Your task to perform on an android device: Open maps Image 0: 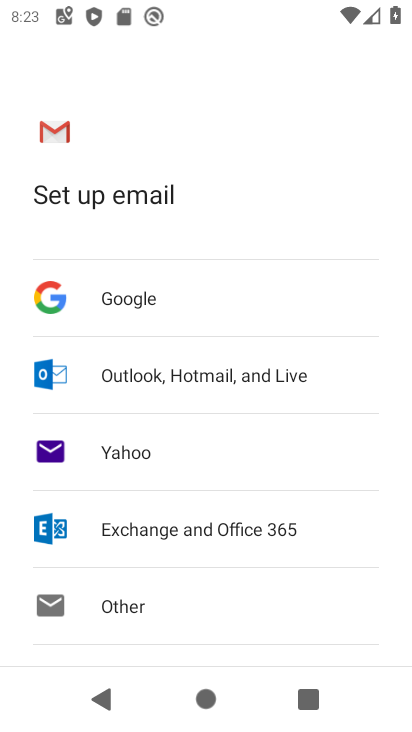
Step 0: press home button
Your task to perform on an android device: Open maps Image 1: 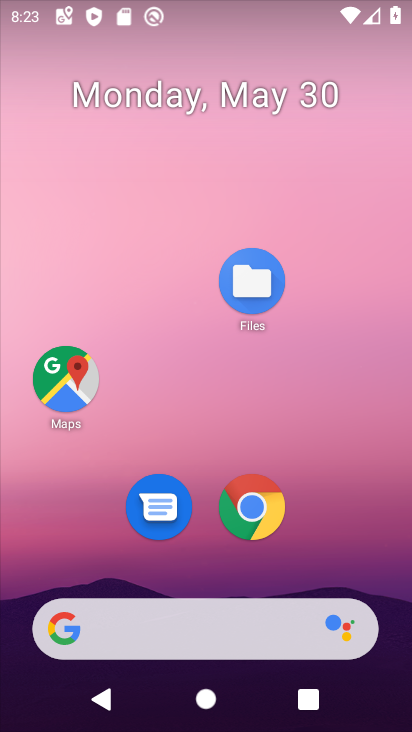
Step 1: click (66, 393)
Your task to perform on an android device: Open maps Image 2: 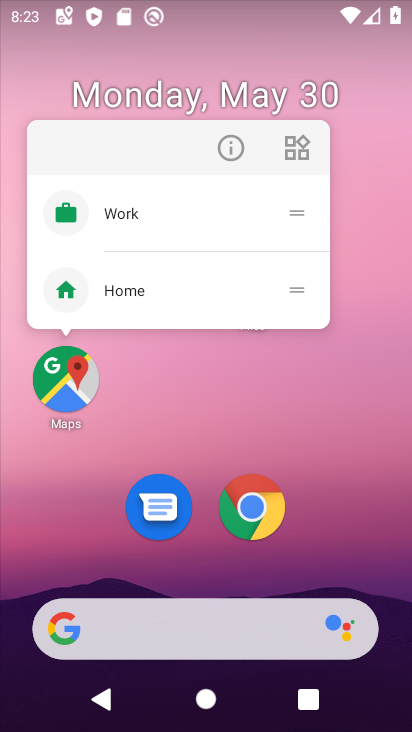
Step 2: click (71, 394)
Your task to perform on an android device: Open maps Image 3: 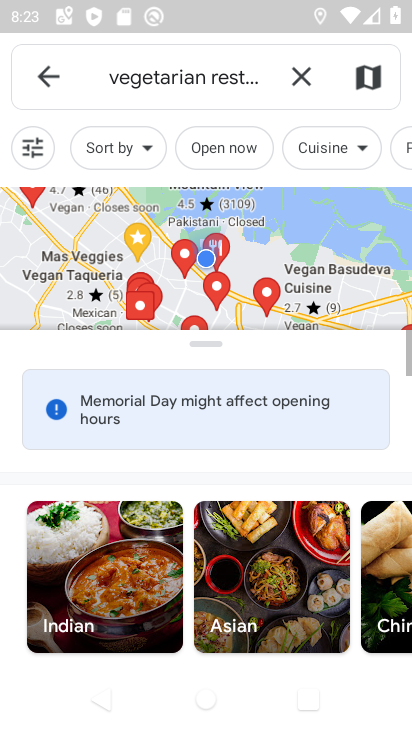
Step 3: click (56, 83)
Your task to perform on an android device: Open maps Image 4: 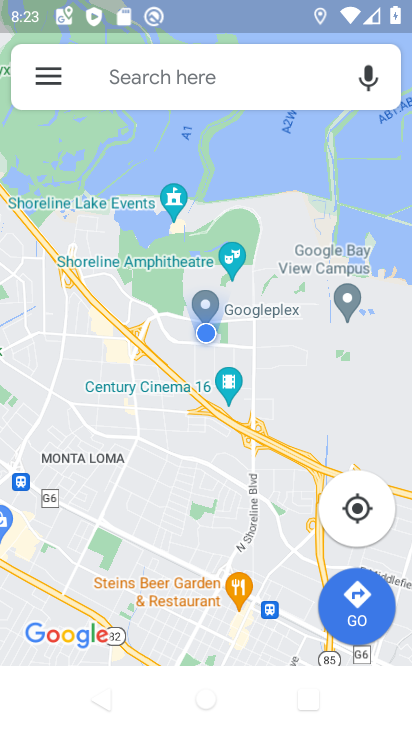
Step 4: task complete